Your task to perform on an android device: turn notification dots off Image 0: 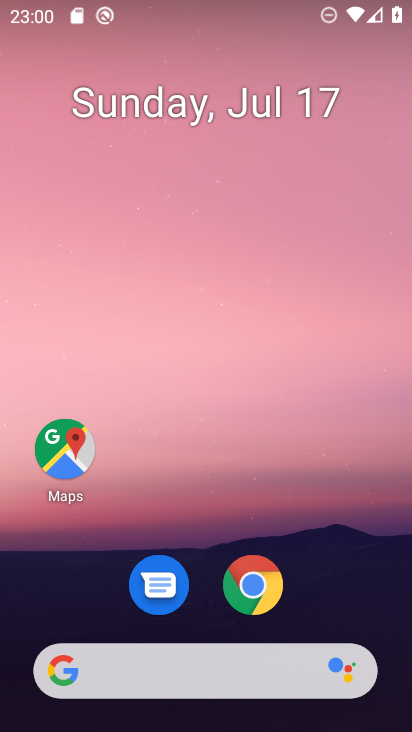
Step 0: press home button
Your task to perform on an android device: turn notification dots off Image 1: 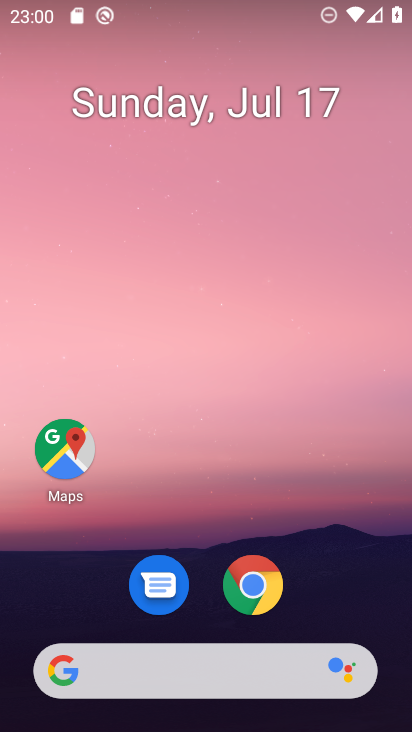
Step 1: drag from (190, 680) to (337, 107)
Your task to perform on an android device: turn notification dots off Image 2: 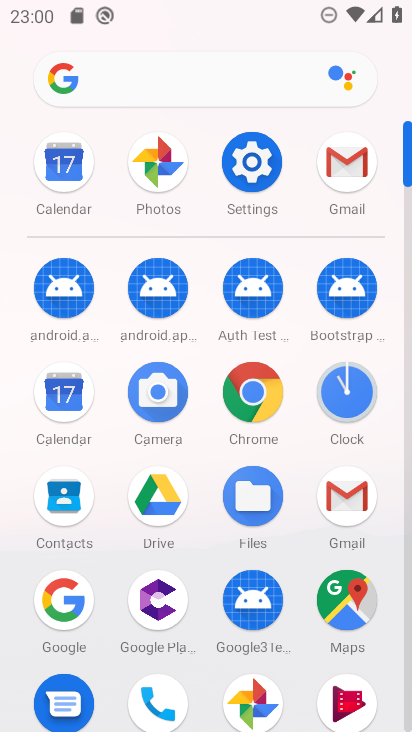
Step 2: click (252, 163)
Your task to perform on an android device: turn notification dots off Image 3: 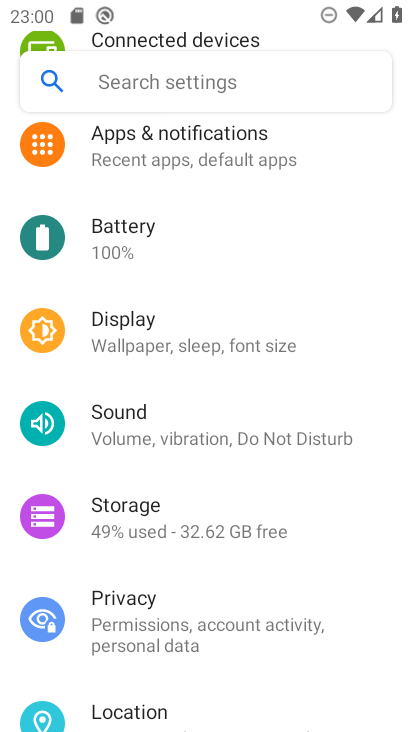
Step 3: click (213, 139)
Your task to perform on an android device: turn notification dots off Image 4: 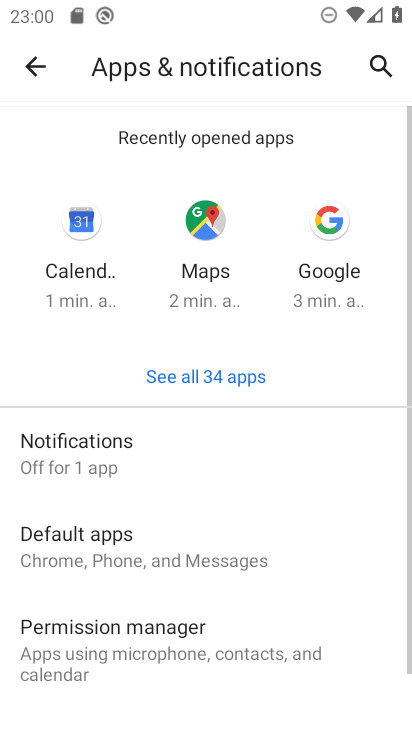
Step 4: click (107, 450)
Your task to perform on an android device: turn notification dots off Image 5: 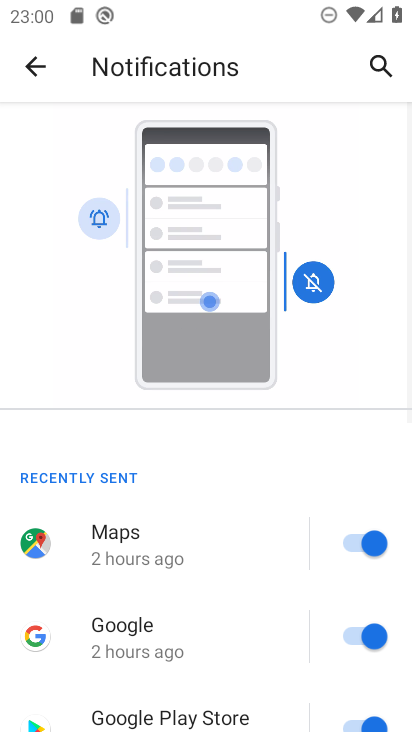
Step 5: drag from (267, 625) to (393, 86)
Your task to perform on an android device: turn notification dots off Image 6: 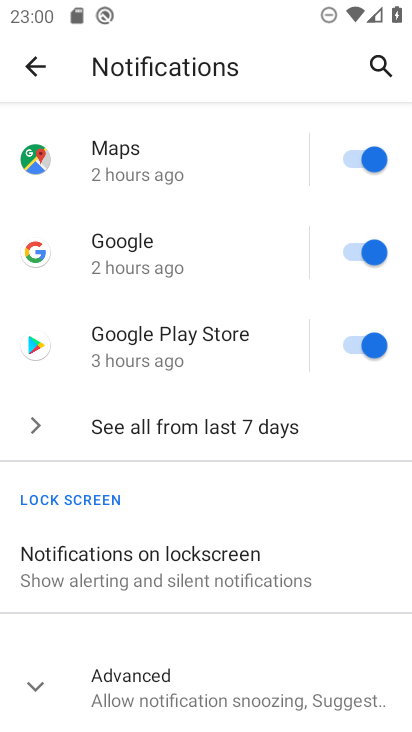
Step 6: click (184, 679)
Your task to perform on an android device: turn notification dots off Image 7: 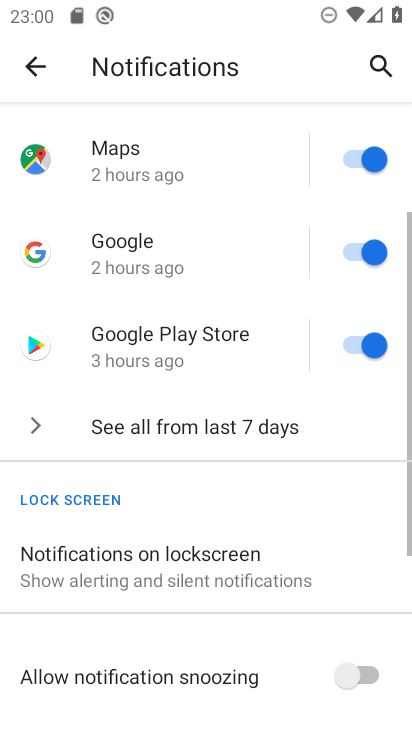
Step 7: drag from (245, 638) to (339, 119)
Your task to perform on an android device: turn notification dots off Image 8: 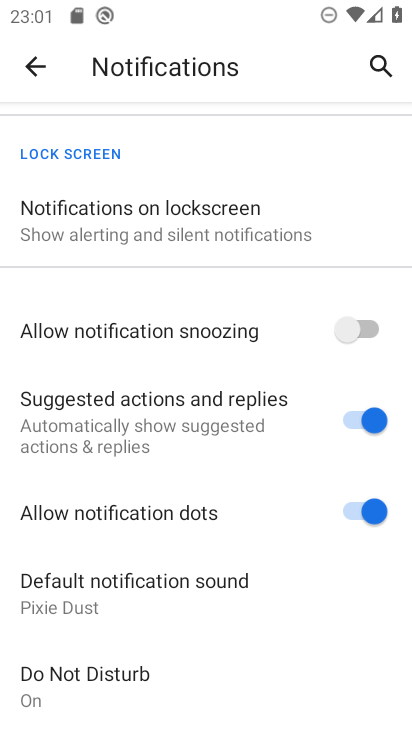
Step 8: click (353, 518)
Your task to perform on an android device: turn notification dots off Image 9: 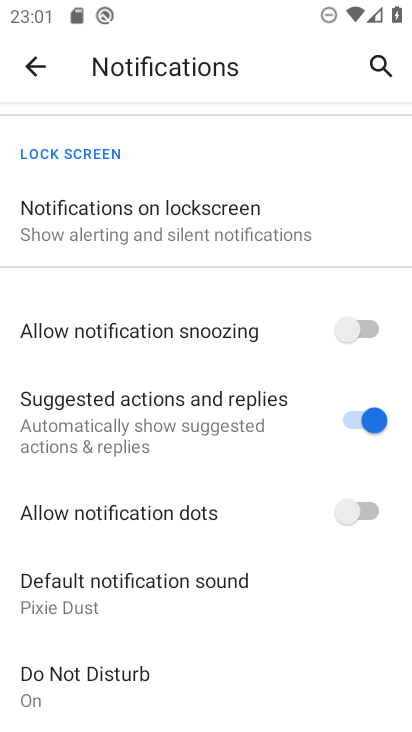
Step 9: task complete